Your task to perform on an android device: change the clock display to analog Image 0: 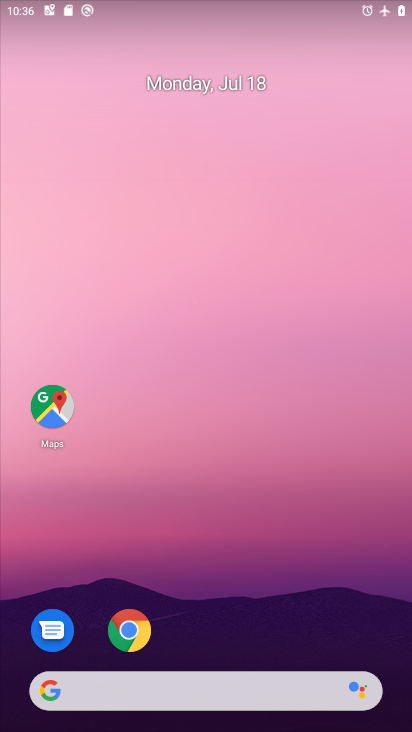
Step 0: drag from (224, 627) to (224, 156)
Your task to perform on an android device: change the clock display to analog Image 1: 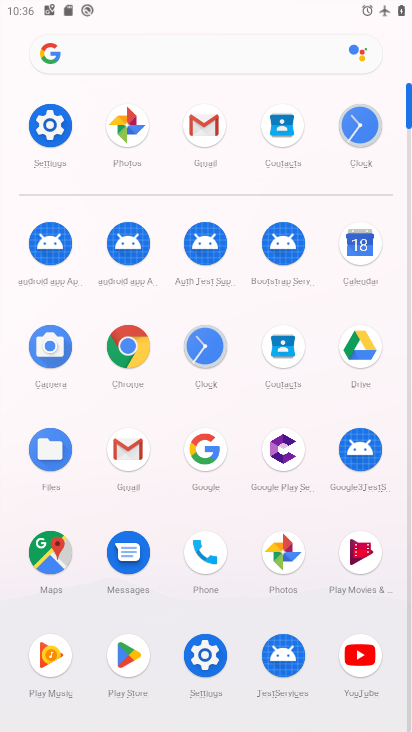
Step 1: click (374, 128)
Your task to perform on an android device: change the clock display to analog Image 2: 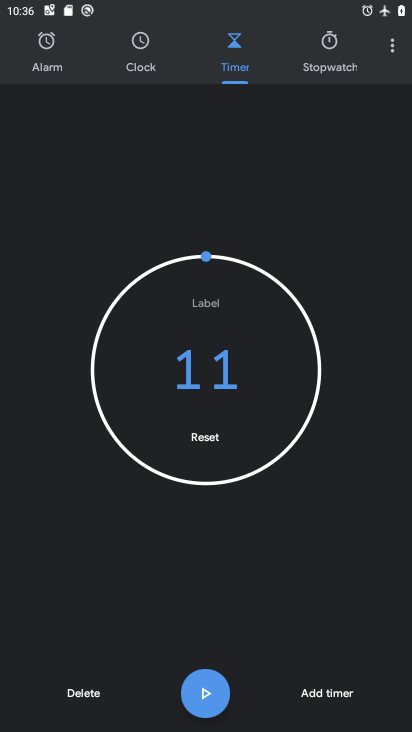
Step 2: click (393, 51)
Your task to perform on an android device: change the clock display to analog Image 3: 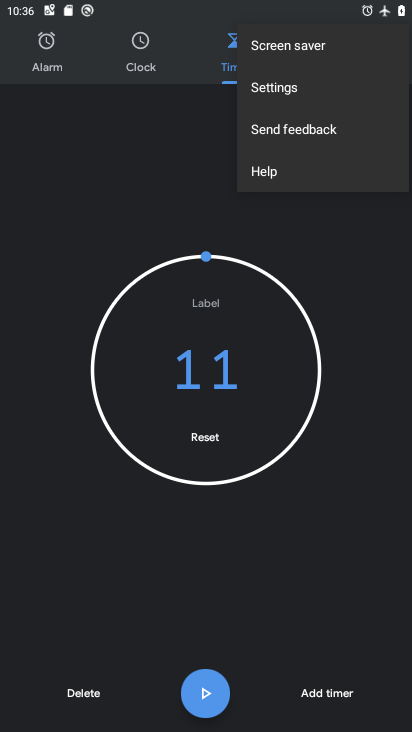
Step 3: click (329, 86)
Your task to perform on an android device: change the clock display to analog Image 4: 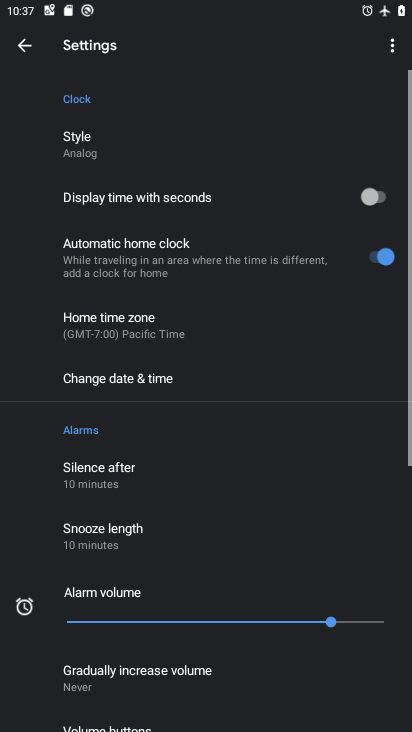
Step 4: click (138, 137)
Your task to perform on an android device: change the clock display to analog Image 5: 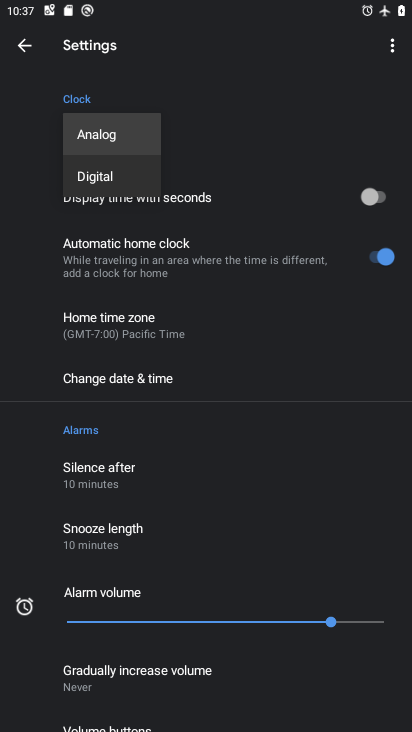
Step 5: task complete